Your task to perform on an android device: Go to eBay Image 0: 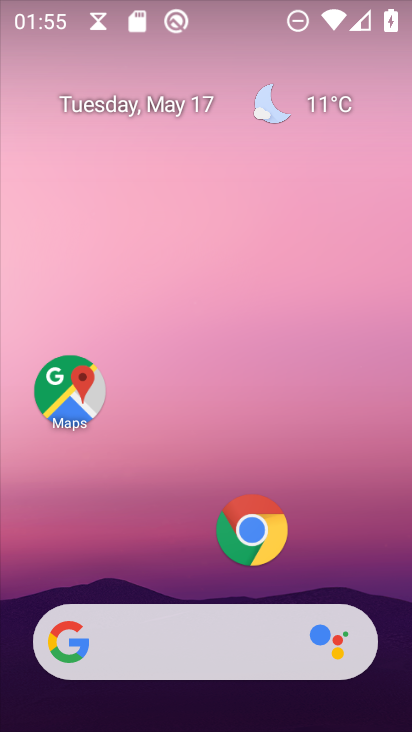
Step 0: click (246, 525)
Your task to perform on an android device: Go to eBay Image 1: 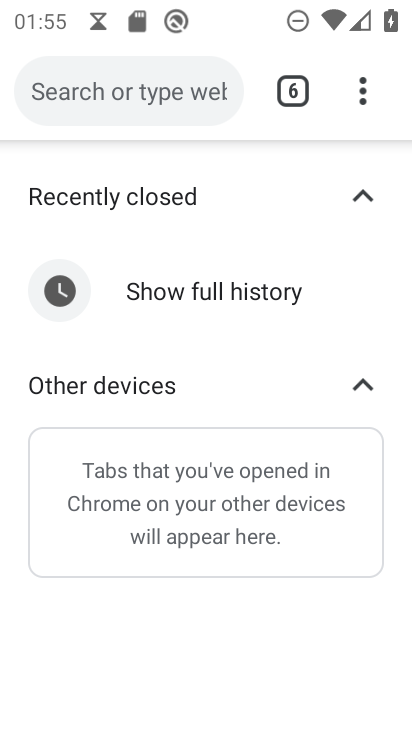
Step 1: click (288, 93)
Your task to perform on an android device: Go to eBay Image 2: 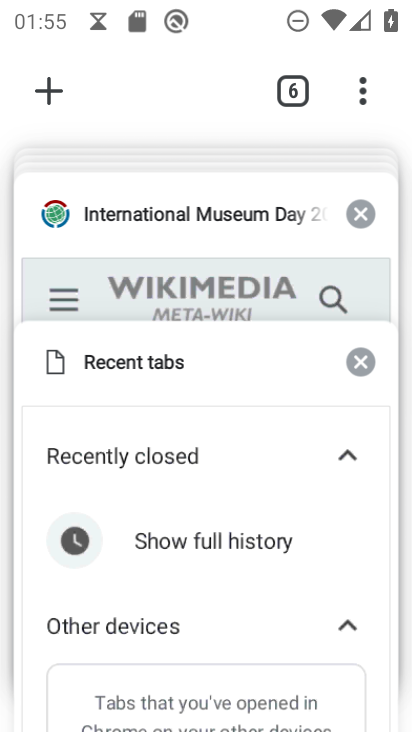
Step 2: drag from (248, 217) to (210, 575)
Your task to perform on an android device: Go to eBay Image 3: 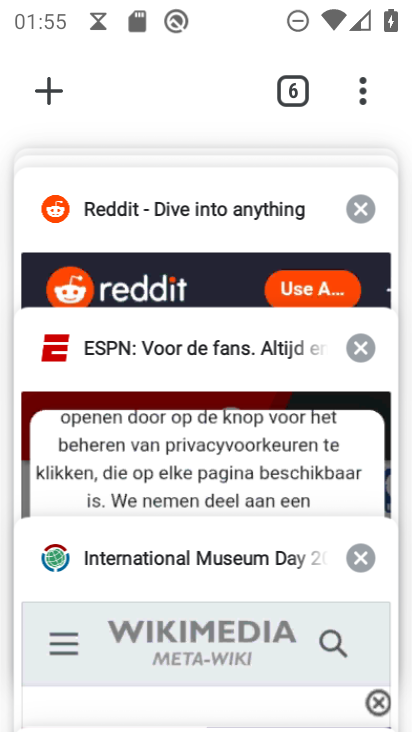
Step 3: drag from (174, 220) to (186, 496)
Your task to perform on an android device: Go to eBay Image 4: 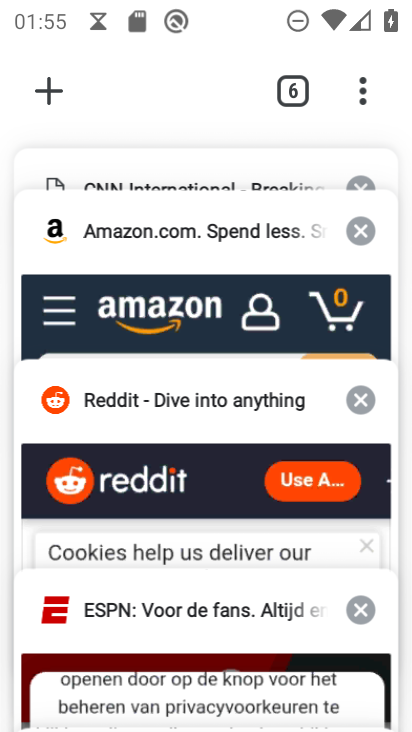
Step 4: drag from (179, 246) to (163, 606)
Your task to perform on an android device: Go to eBay Image 5: 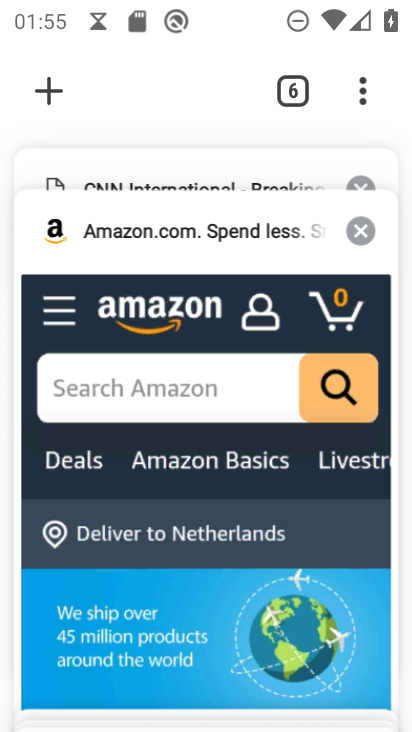
Step 5: drag from (144, 285) to (155, 625)
Your task to perform on an android device: Go to eBay Image 6: 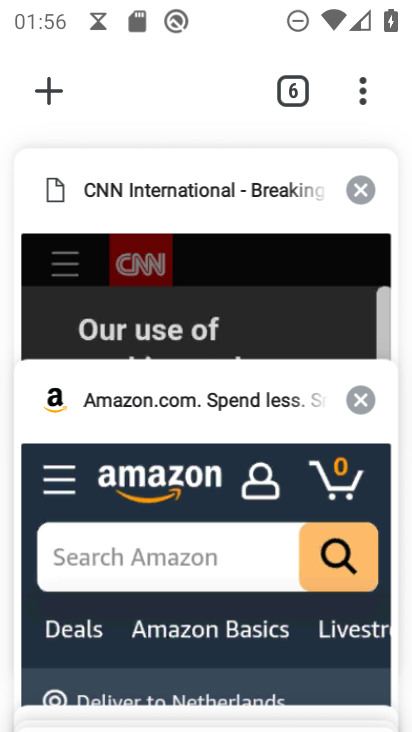
Step 6: drag from (171, 191) to (168, 561)
Your task to perform on an android device: Go to eBay Image 7: 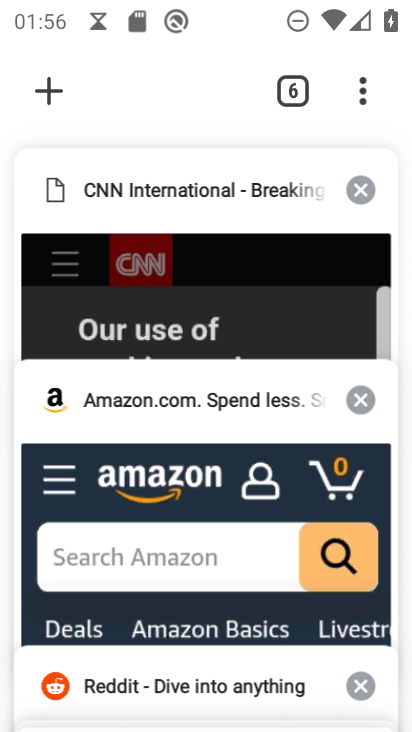
Step 7: drag from (175, 138) to (184, 521)
Your task to perform on an android device: Go to eBay Image 8: 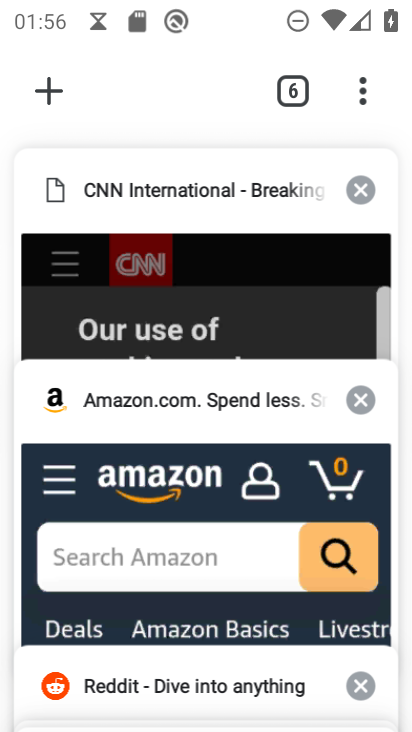
Step 8: click (50, 88)
Your task to perform on an android device: Go to eBay Image 9: 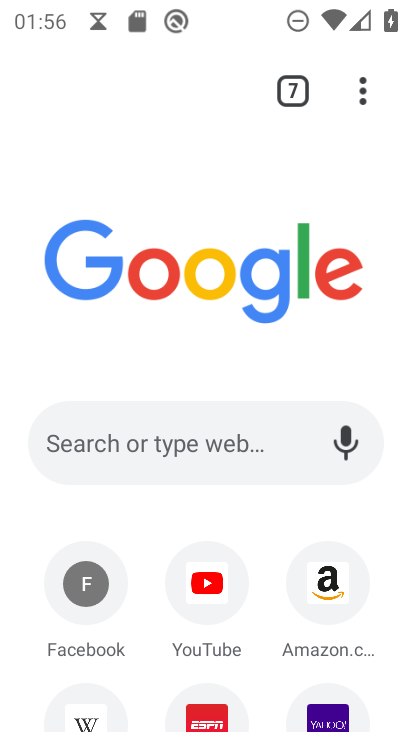
Step 9: drag from (242, 647) to (215, 213)
Your task to perform on an android device: Go to eBay Image 10: 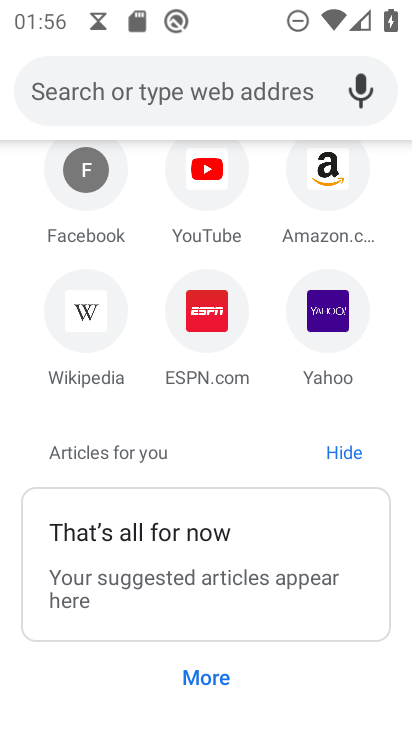
Step 10: drag from (276, 232) to (263, 645)
Your task to perform on an android device: Go to eBay Image 11: 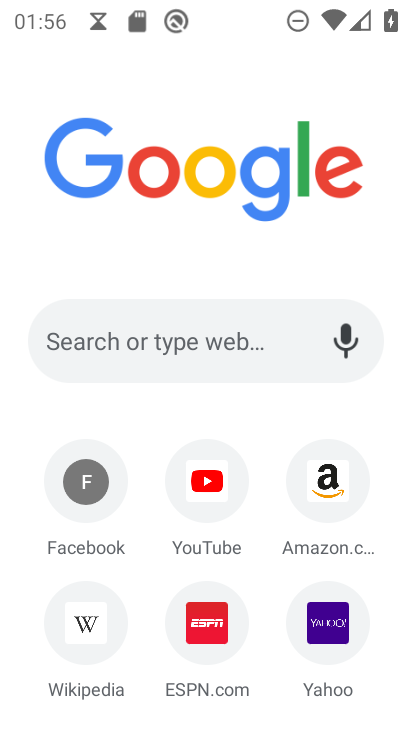
Step 11: click (161, 342)
Your task to perform on an android device: Go to eBay Image 12: 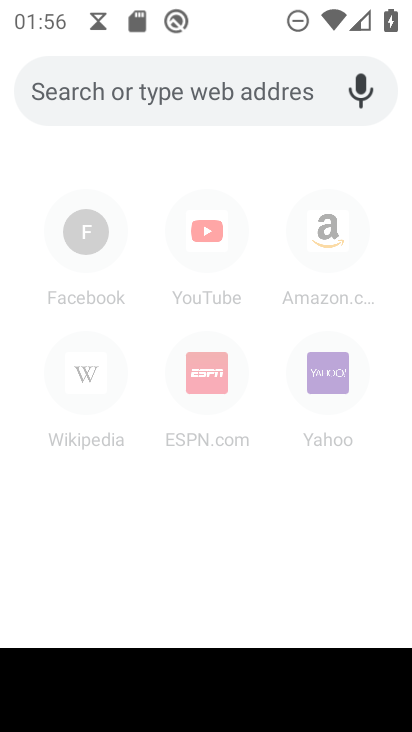
Step 12: type "ebay.com"
Your task to perform on an android device: Go to eBay Image 13: 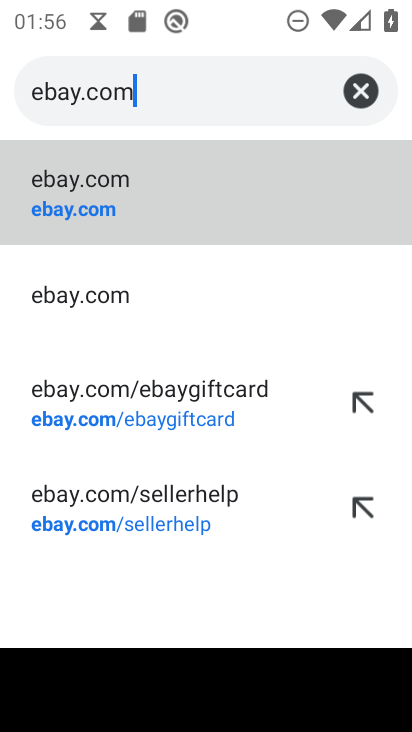
Step 13: click (47, 211)
Your task to perform on an android device: Go to eBay Image 14: 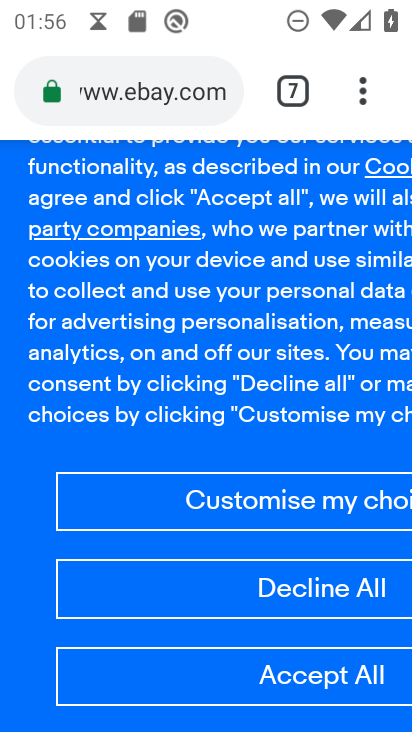
Step 14: task complete